Your task to perform on an android device: empty trash in the gmail app Image 0: 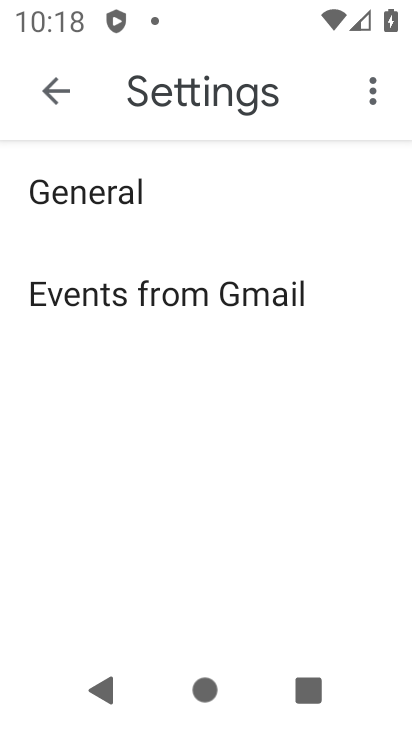
Step 0: press home button
Your task to perform on an android device: empty trash in the gmail app Image 1: 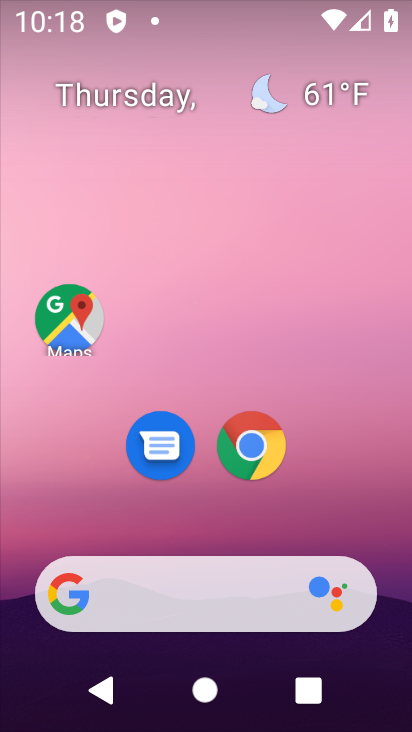
Step 1: drag from (193, 536) to (236, 18)
Your task to perform on an android device: empty trash in the gmail app Image 2: 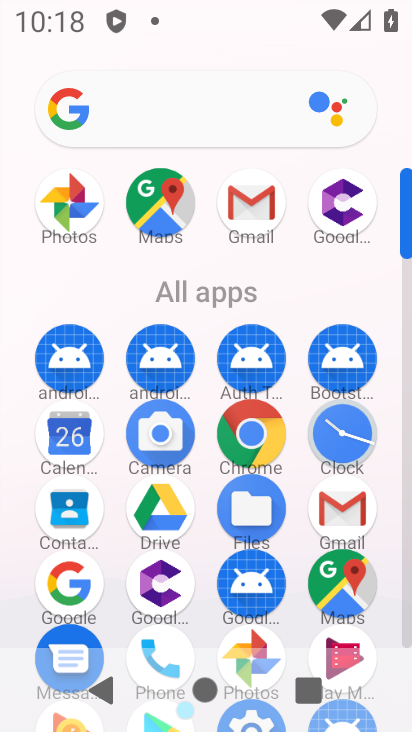
Step 2: click (334, 490)
Your task to perform on an android device: empty trash in the gmail app Image 3: 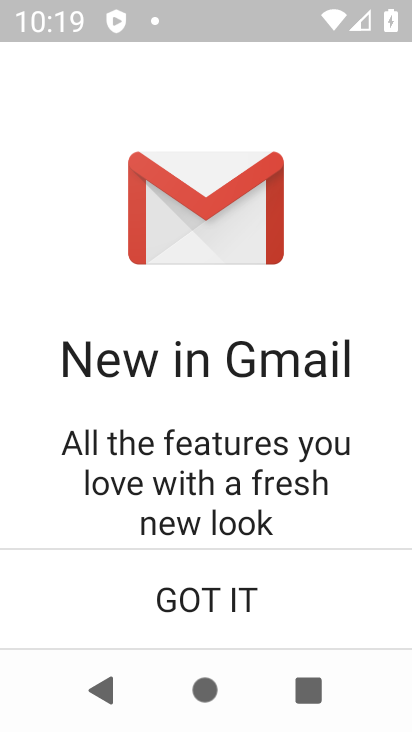
Step 3: click (273, 615)
Your task to perform on an android device: empty trash in the gmail app Image 4: 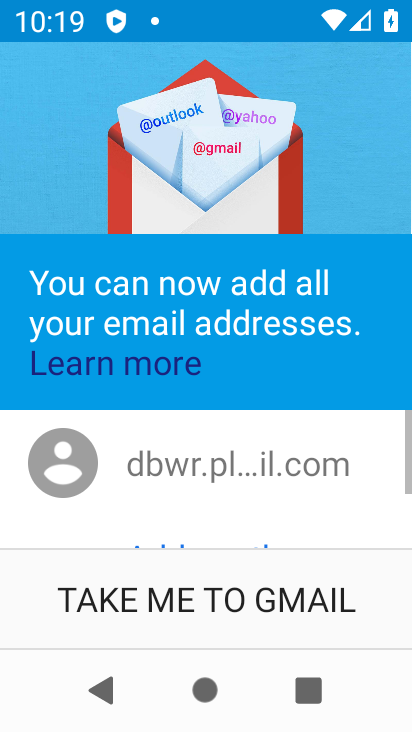
Step 4: click (254, 606)
Your task to perform on an android device: empty trash in the gmail app Image 5: 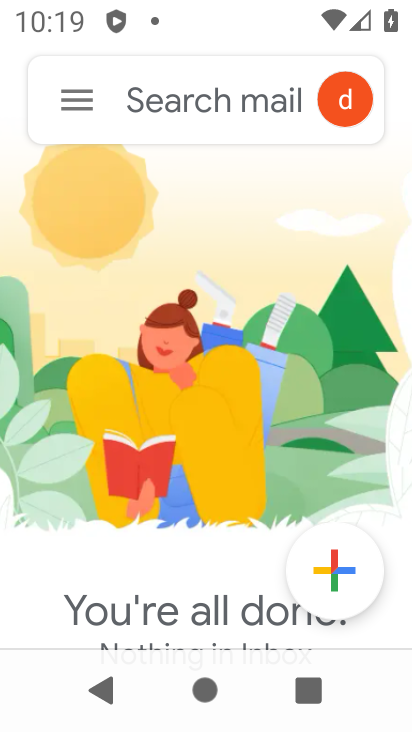
Step 5: click (75, 107)
Your task to perform on an android device: empty trash in the gmail app Image 6: 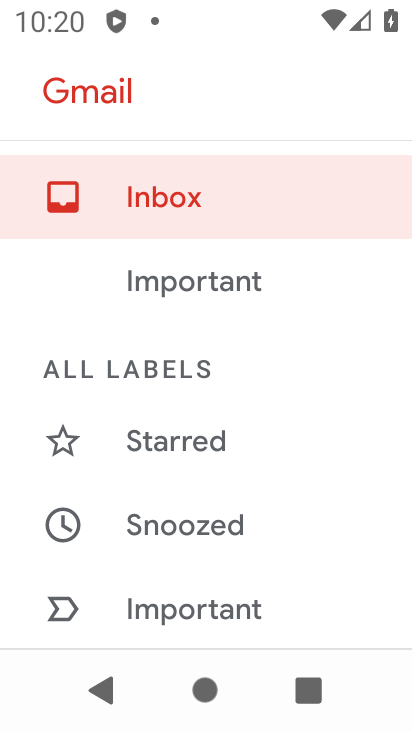
Step 6: drag from (203, 581) to (200, 187)
Your task to perform on an android device: empty trash in the gmail app Image 7: 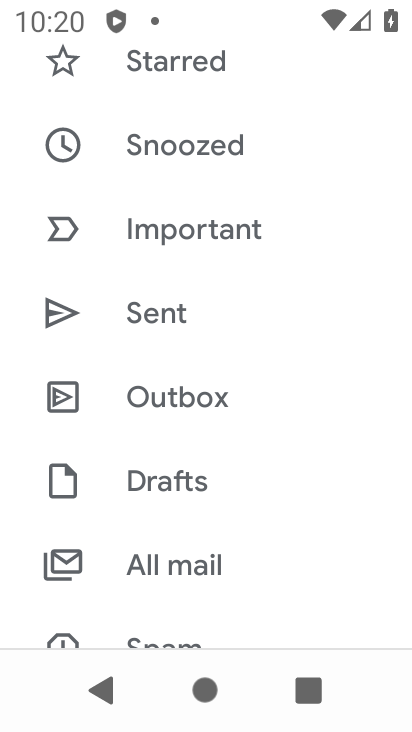
Step 7: drag from (210, 548) to (232, 75)
Your task to perform on an android device: empty trash in the gmail app Image 8: 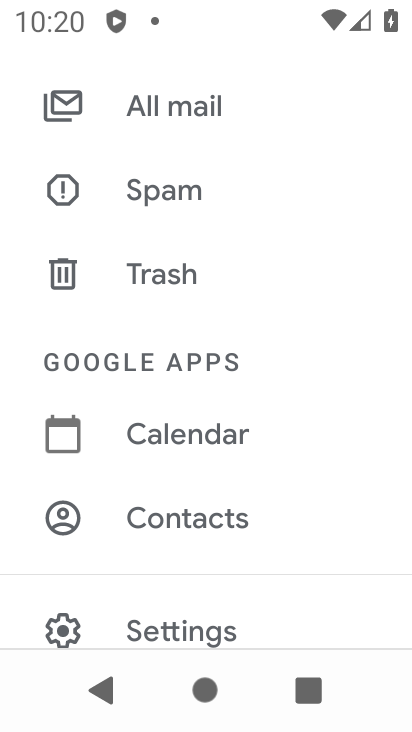
Step 8: click (213, 263)
Your task to perform on an android device: empty trash in the gmail app Image 9: 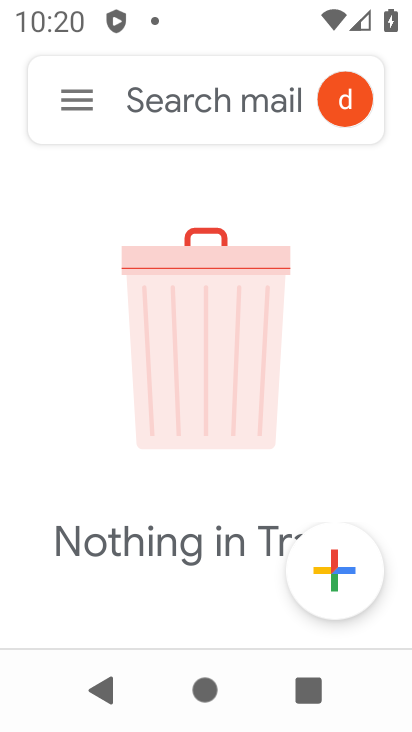
Step 9: task complete